Your task to perform on an android device: Open Youtube and go to the subscriptions tab Image 0: 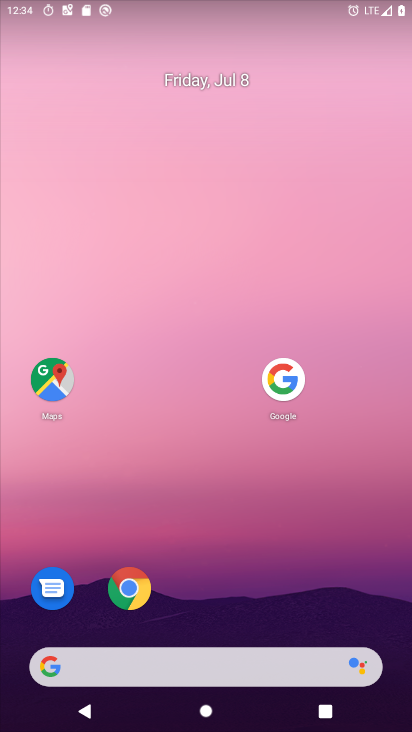
Step 0: drag from (179, 658) to (340, 119)
Your task to perform on an android device: Open Youtube and go to the subscriptions tab Image 1: 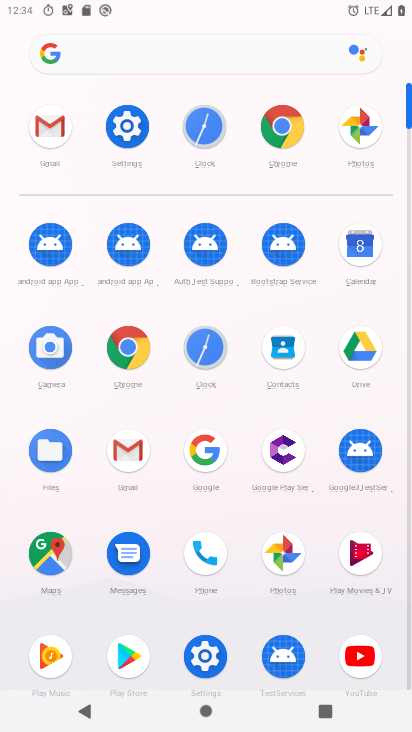
Step 1: click (356, 657)
Your task to perform on an android device: Open Youtube and go to the subscriptions tab Image 2: 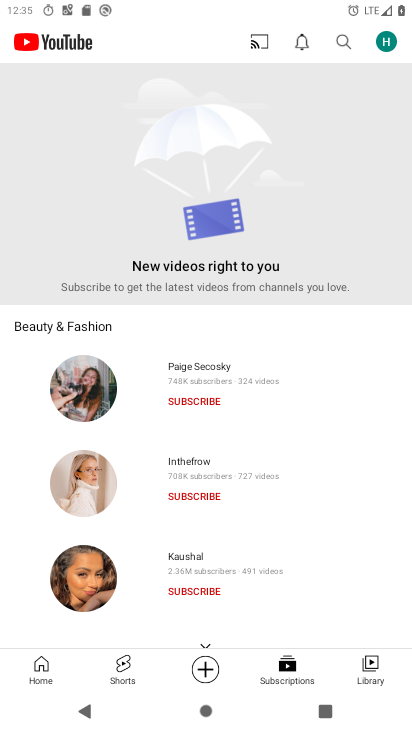
Step 2: task complete